Your task to perform on an android device: manage bookmarks in the chrome app Image 0: 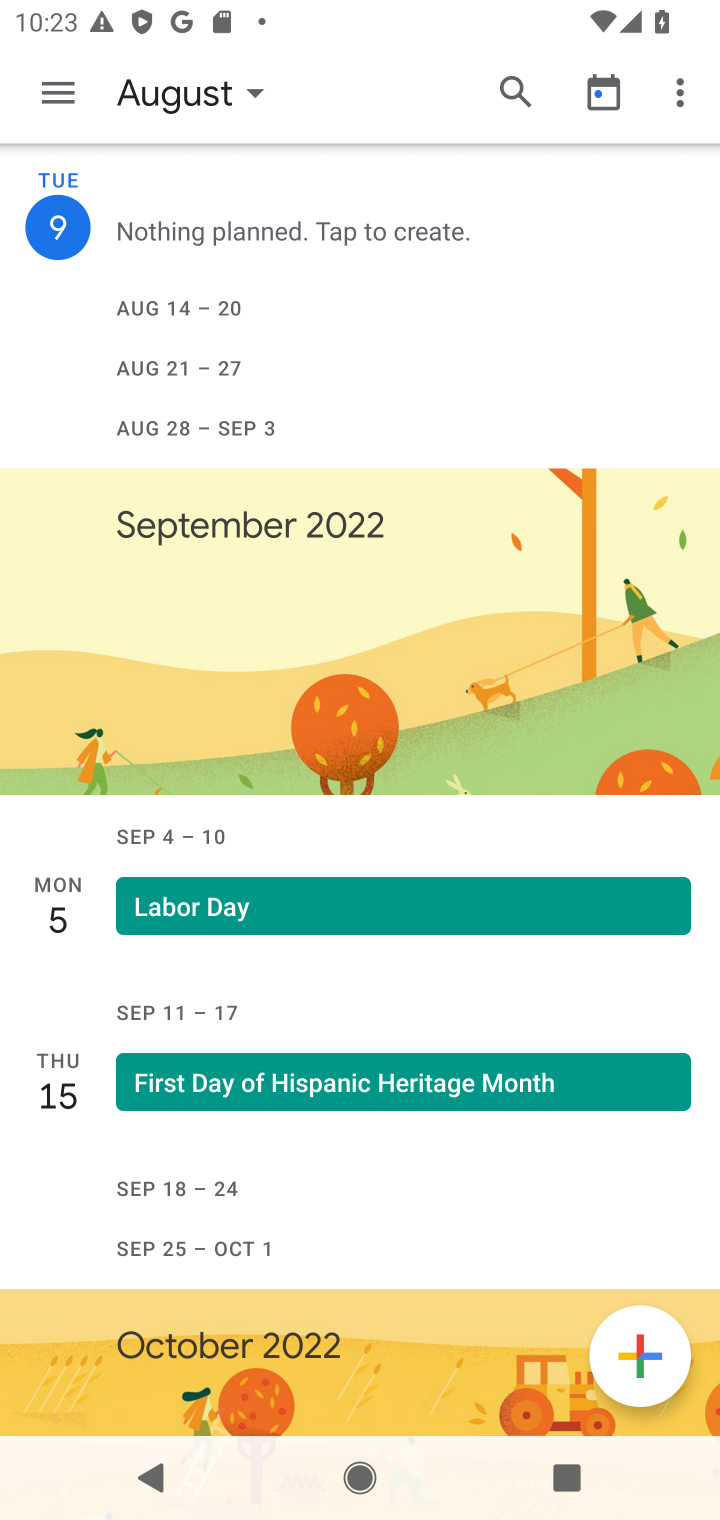
Step 0: press home button
Your task to perform on an android device: manage bookmarks in the chrome app Image 1: 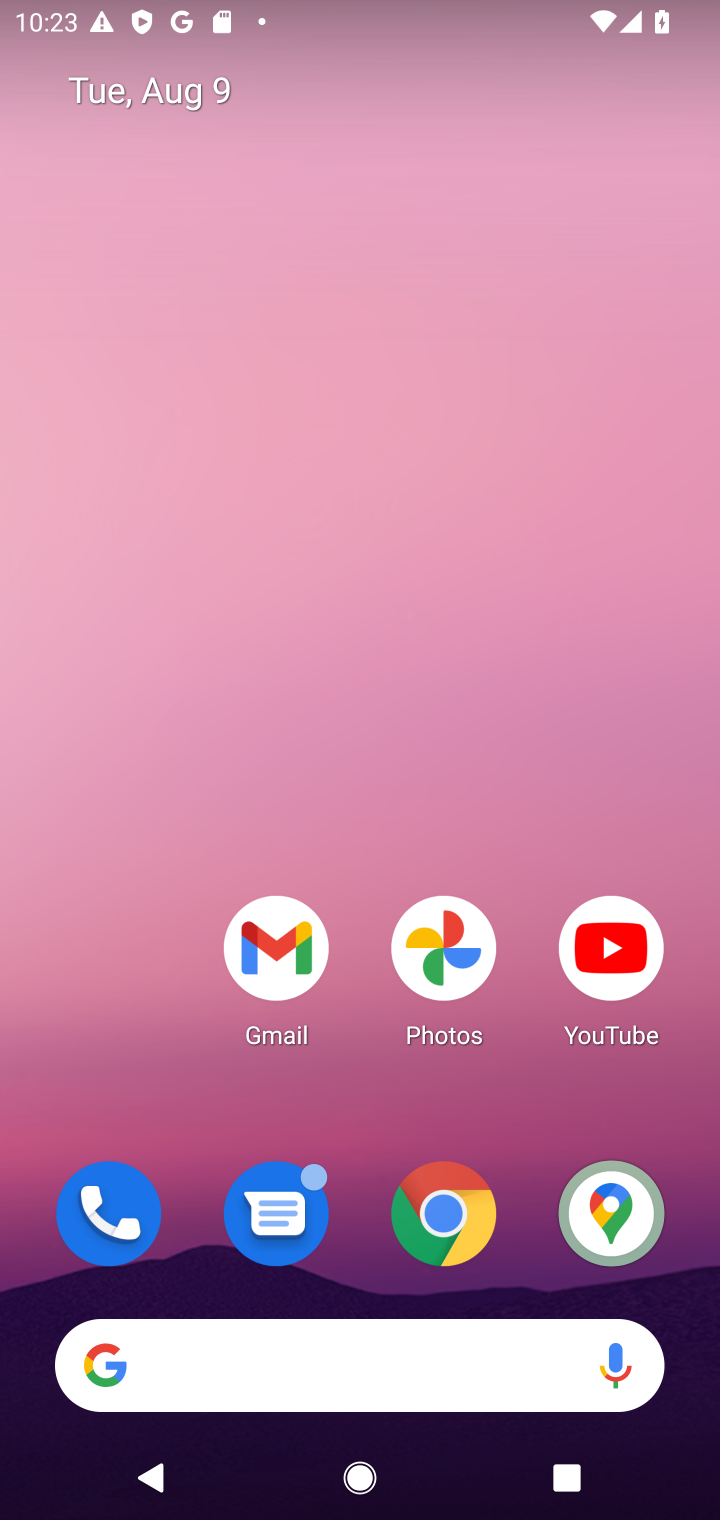
Step 1: click (425, 1211)
Your task to perform on an android device: manage bookmarks in the chrome app Image 2: 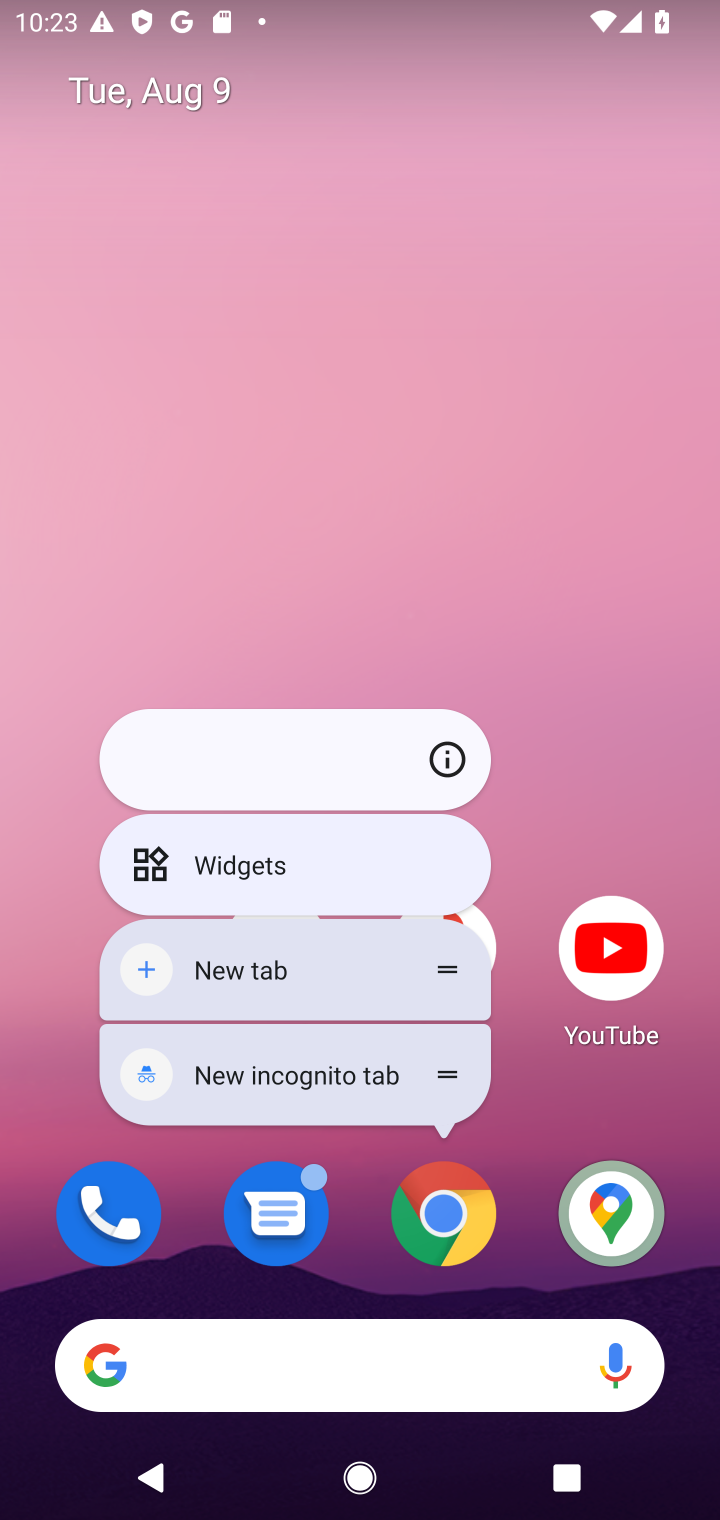
Step 2: click (447, 1190)
Your task to perform on an android device: manage bookmarks in the chrome app Image 3: 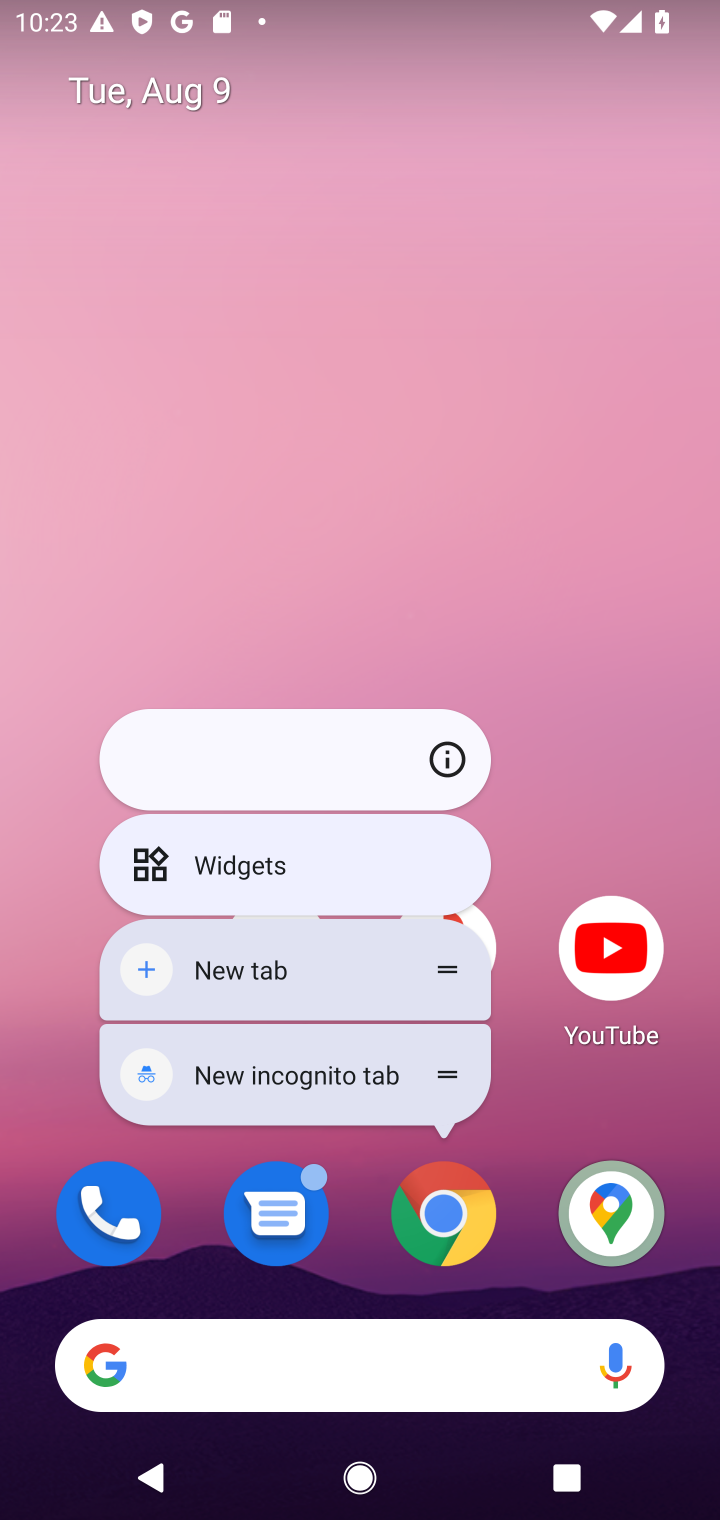
Step 3: click (451, 1211)
Your task to perform on an android device: manage bookmarks in the chrome app Image 4: 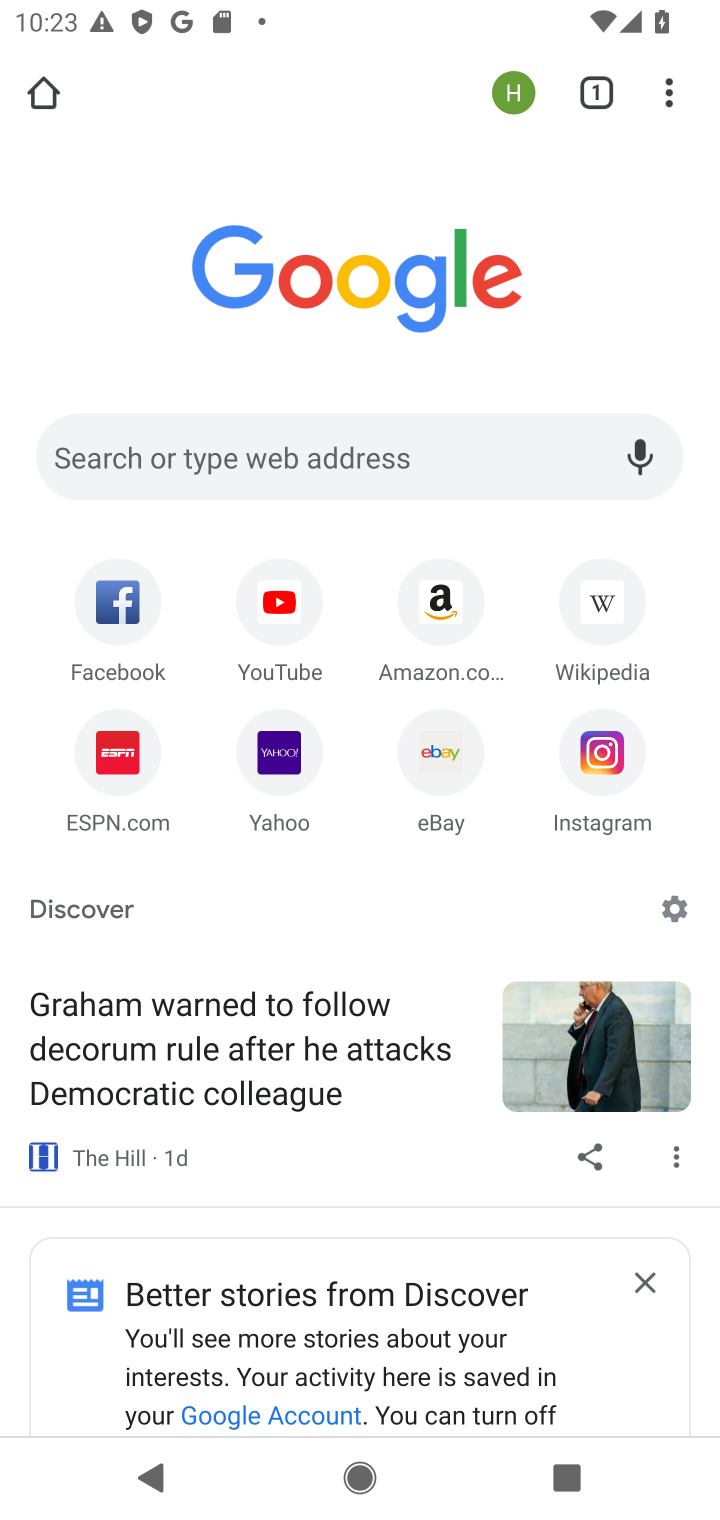
Step 4: click (672, 100)
Your task to perform on an android device: manage bookmarks in the chrome app Image 5: 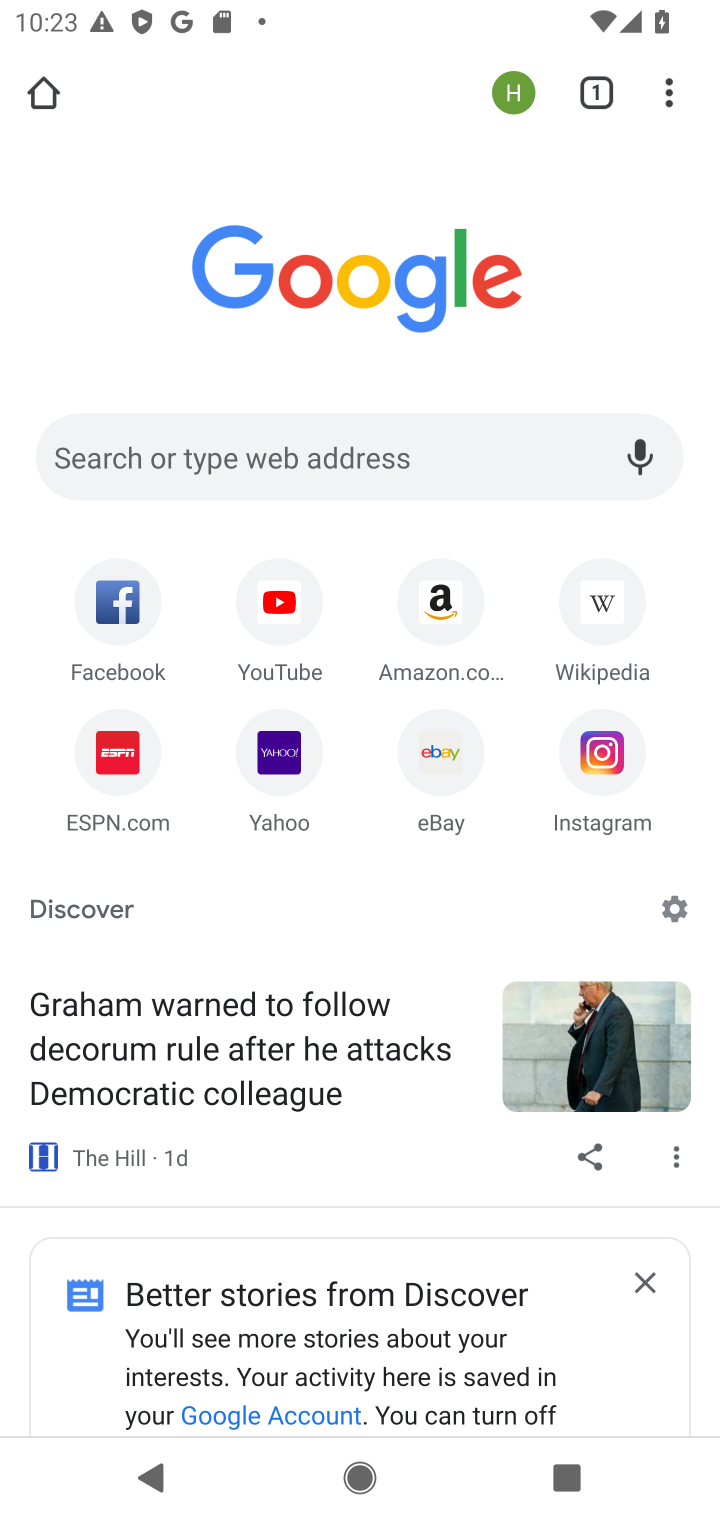
Step 5: drag from (672, 100) to (370, 556)
Your task to perform on an android device: manage bookmarks in the chrome app Image 6: 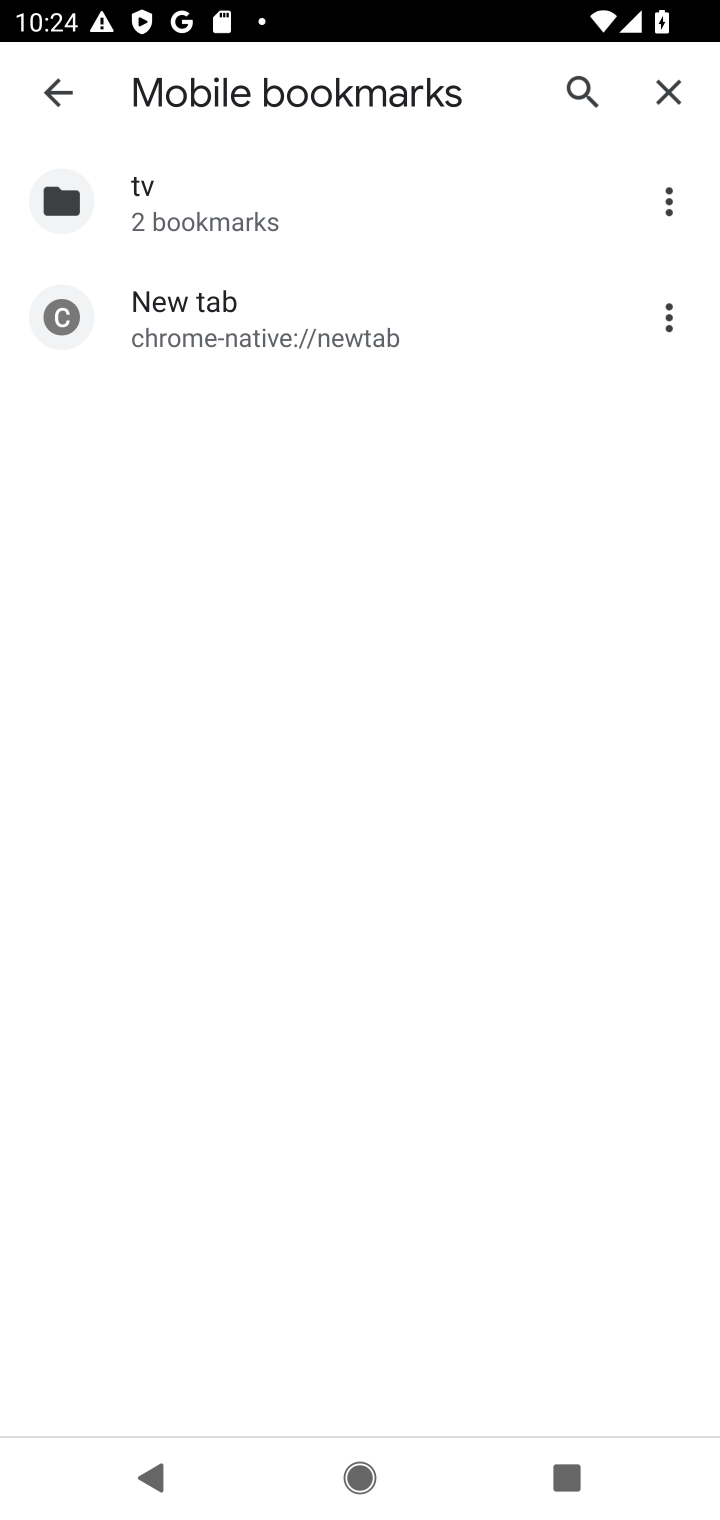
Step 6: click (277, 336)
Your task to perform on an android device: manage bookmarks in the chrome app Image 7: 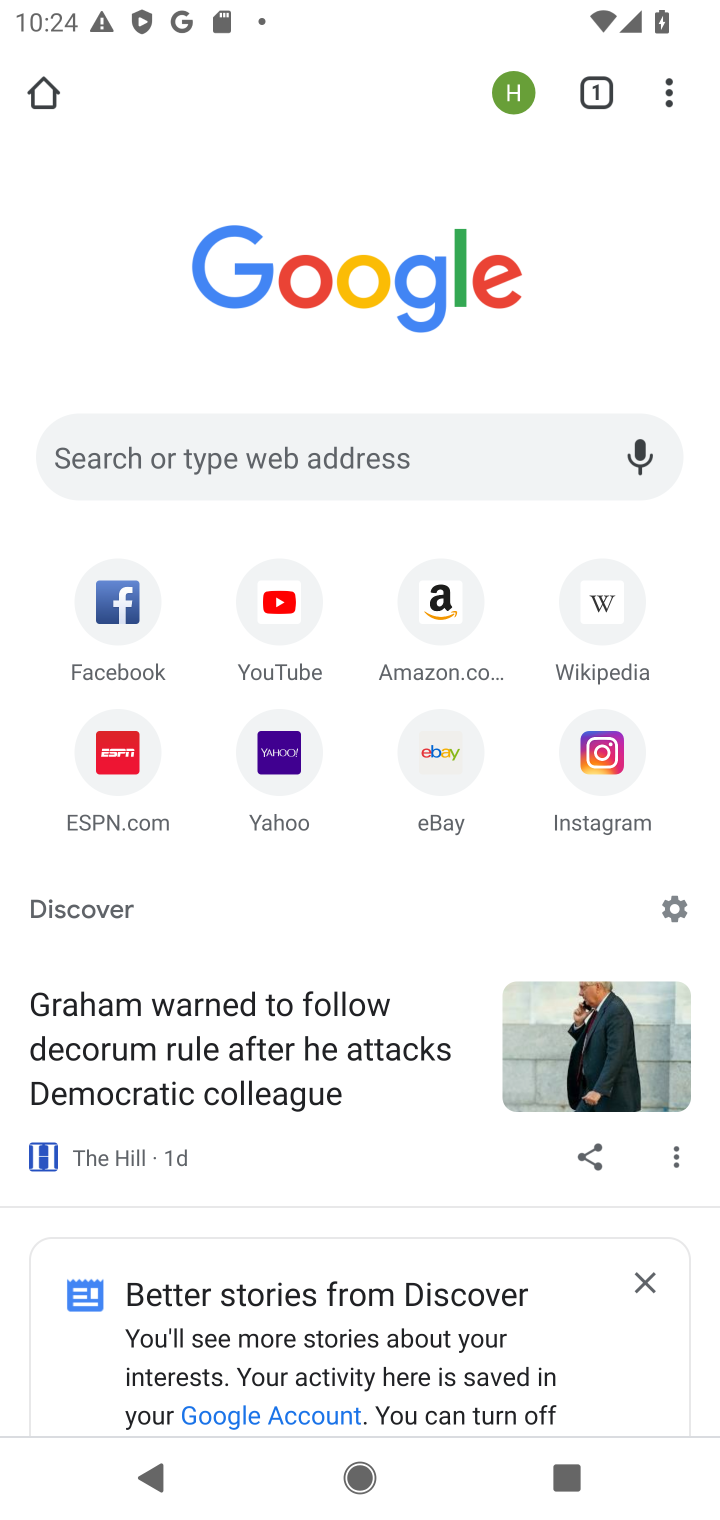
Step 7: task complete